Your task to perform on an android device: add a contact Image 0: 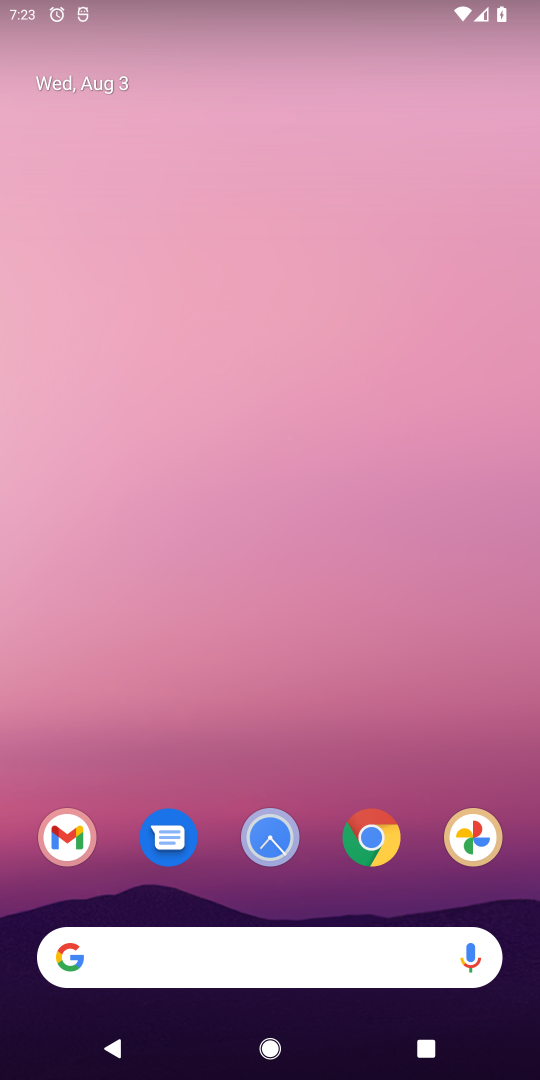
Step 0: press home button
Your task to perform on an android device: add a contact Image 1: 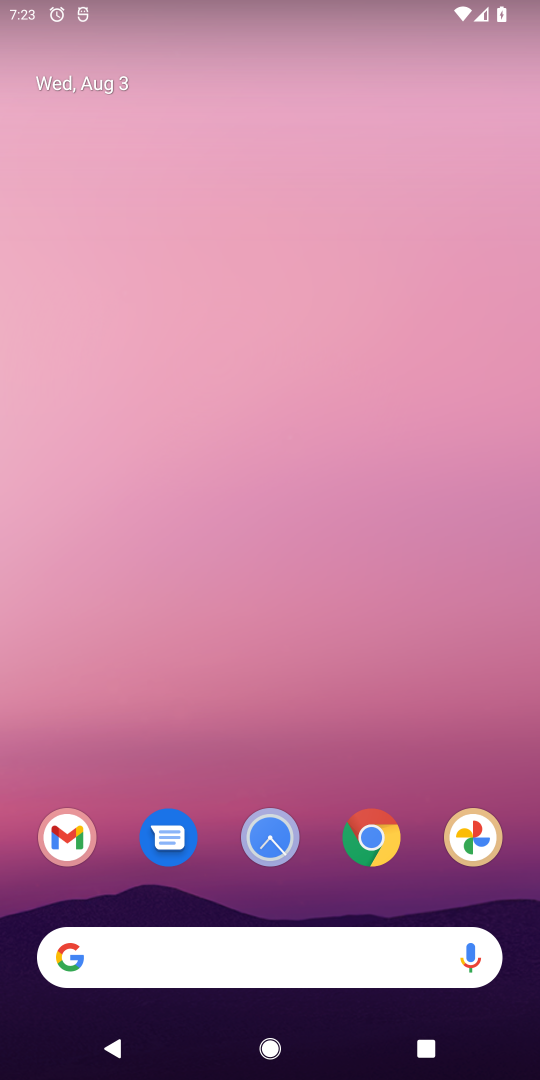
Step 1: drag from (265, 731) to (461, 4)
Your task to perform on an android device: add a contact Image 2: 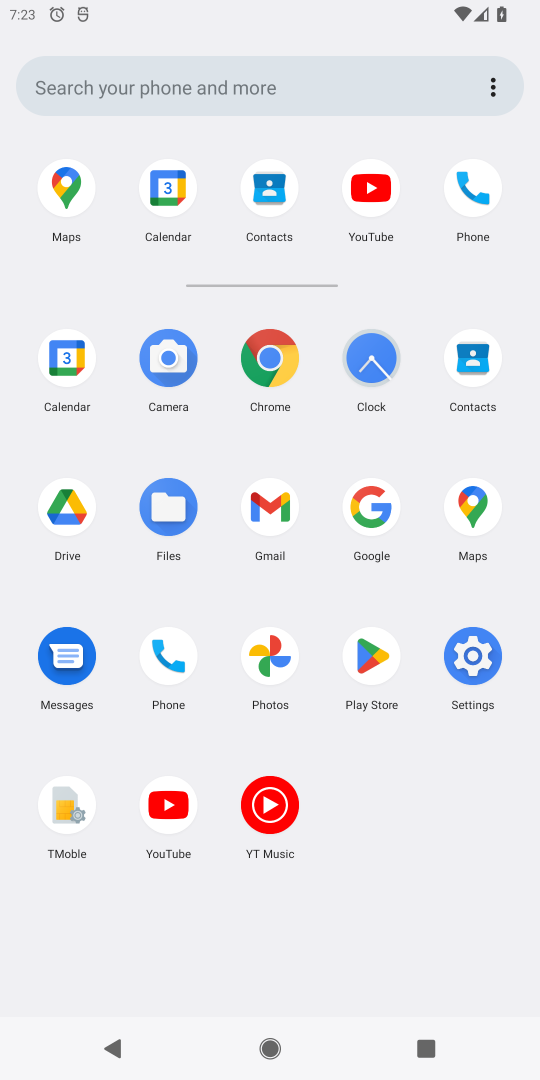
Step 2: click (460, 374)
Your task to perform on an android device: add a contact Image 3: 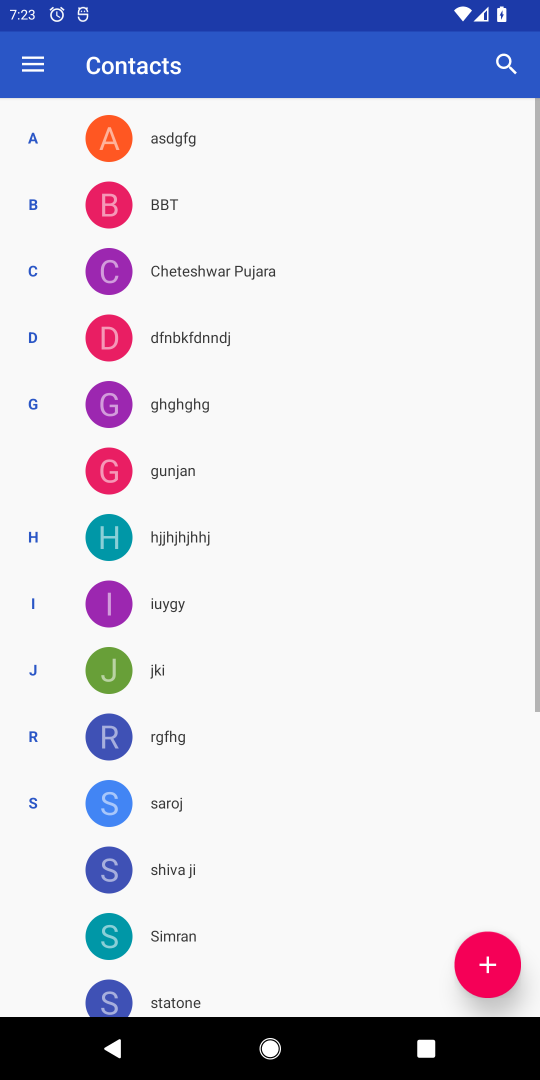
Step 3: click (481, 967)
Your task to perform on an android device: add a contact Image 4: 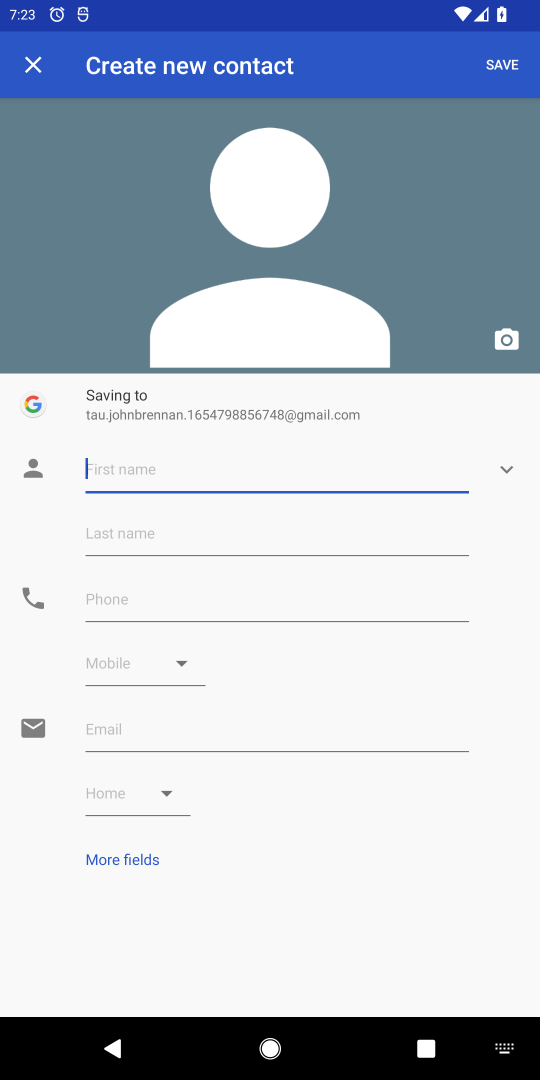
Step 4: type "tghdhdghghghg"
Your task to perform on an android device: add a contact Image 5: 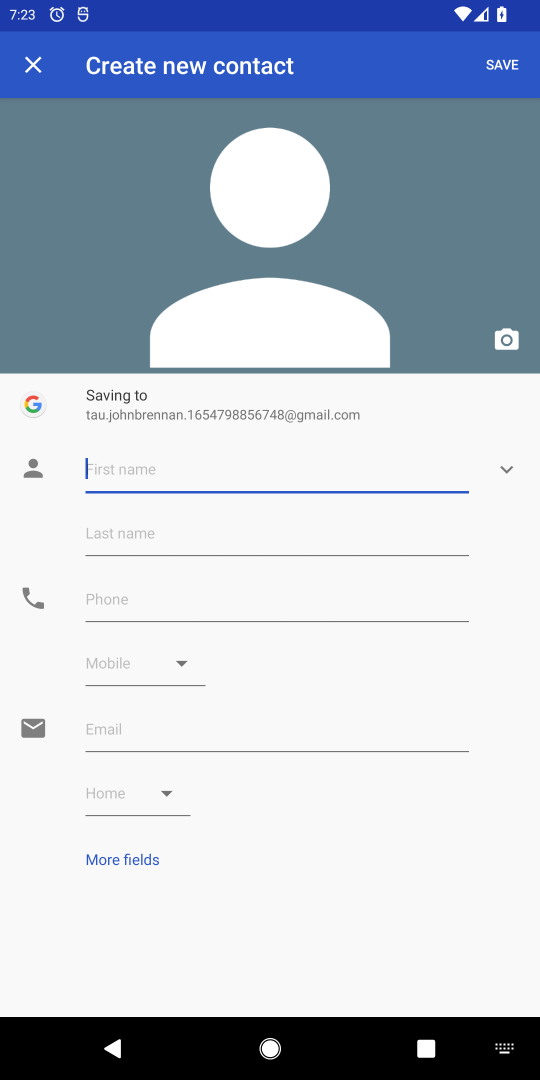
Step 5: click (209, 476)
Your task to perform on an android device: add a contact Image 6: 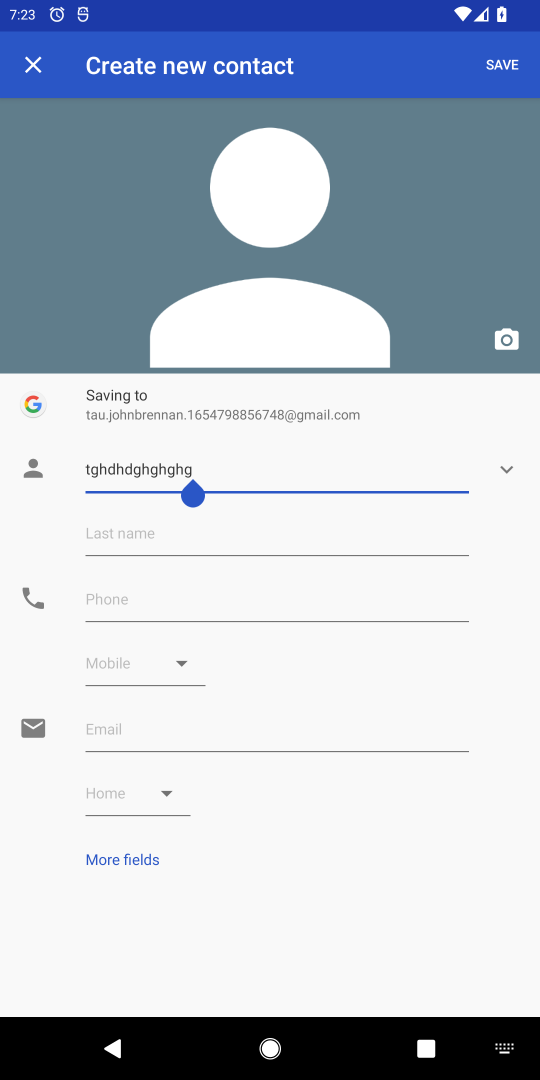
Step 6: click (202, 616)
Your task to perform on an android device: add a contact Image 7: 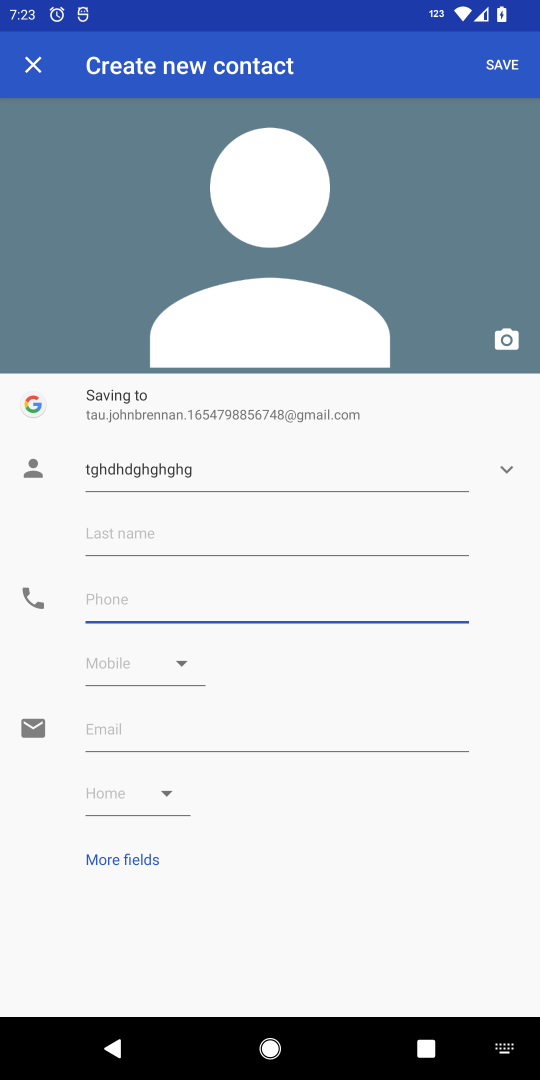
Step 7: type "33435656656"
Your task to perform on an android device: add a contact Image 8: 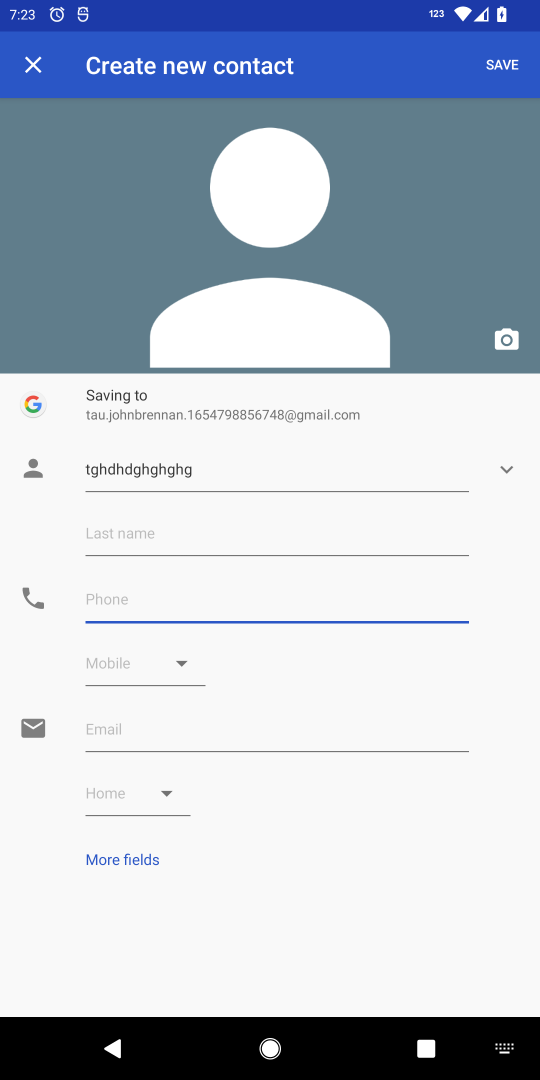
Step 8: click (117, 578)
Your task to perform on an android device: add a contact Image 9: 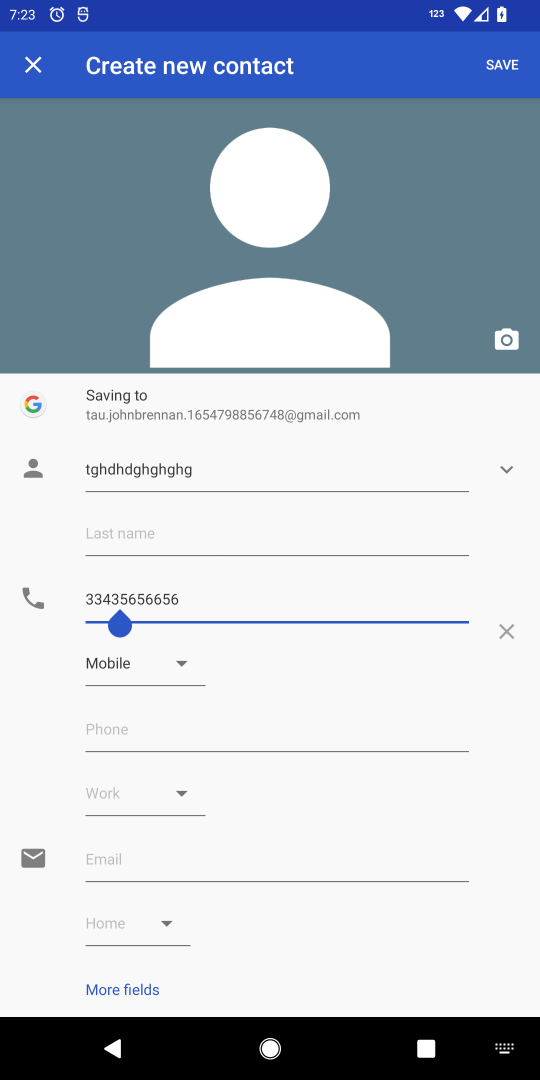
Step 9: click (511, 61)
Your task to perform on an android device: add a contact Image 10: 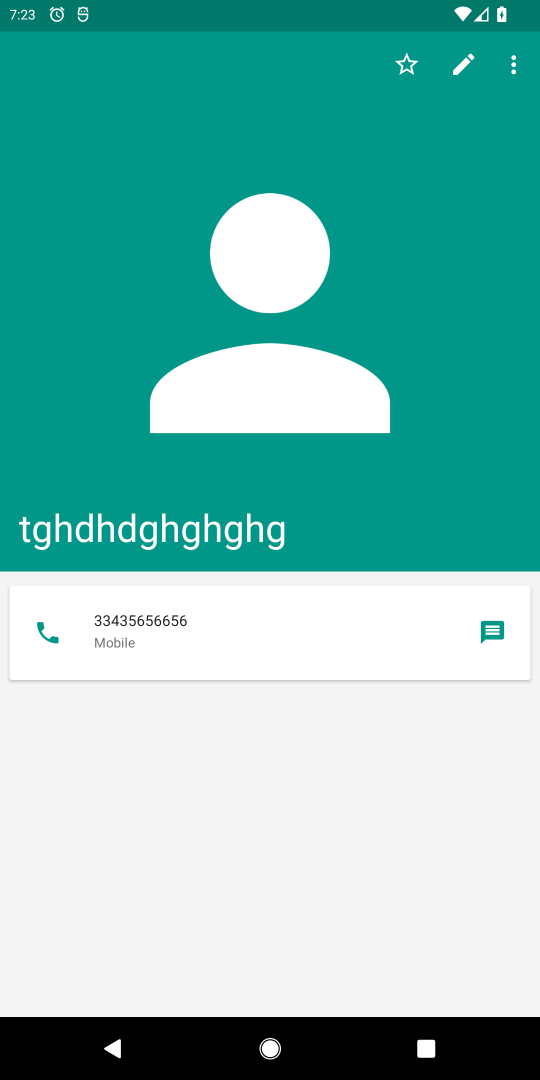
Step 10: task complete